Your task to perform on an android device: Open Google Chrome Image 0: 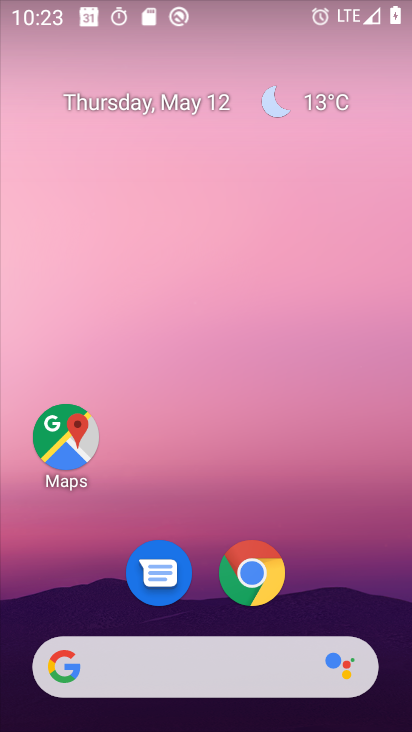
Step 0: click (251, 571)
Your task to perform on an android device: Open Google Chrome Image 1: 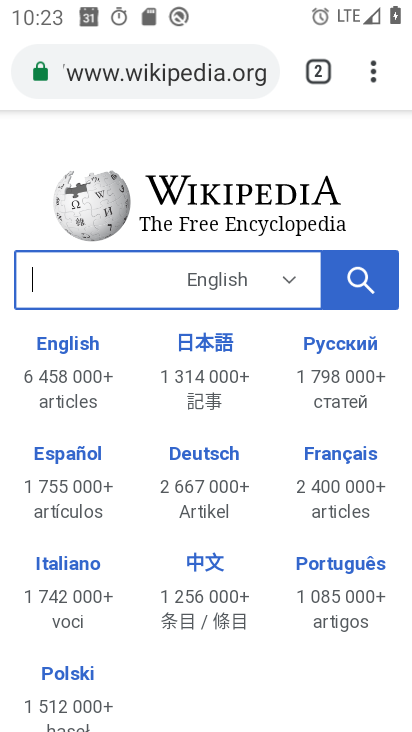
Step 1: task complete